Your task to perform on an android device: clear all cookies in the chrome app Image 0: 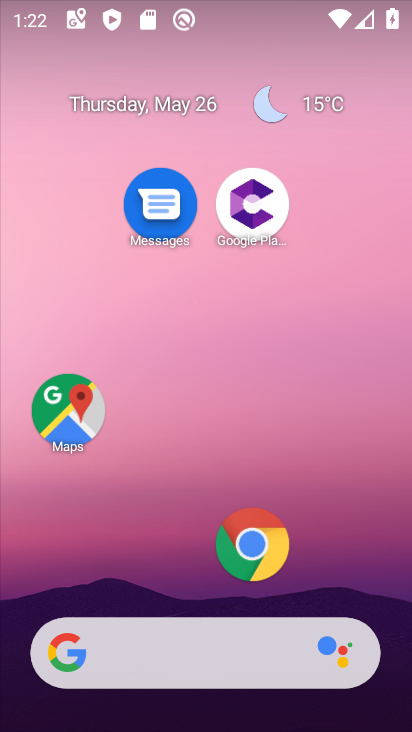
Step 0: click (247, 542)
Your task to perform on an android device: clear all cookies in the chrome app Image 1: 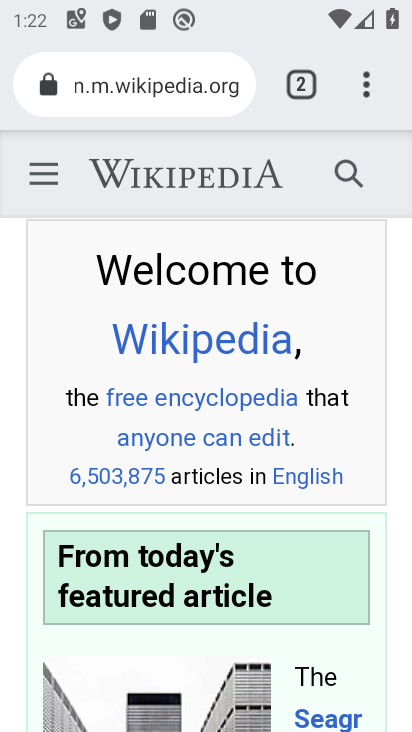
Step 1: click (374, 73)
Your task to perform on an android device: clear all cookies in the chrome app Image 2: 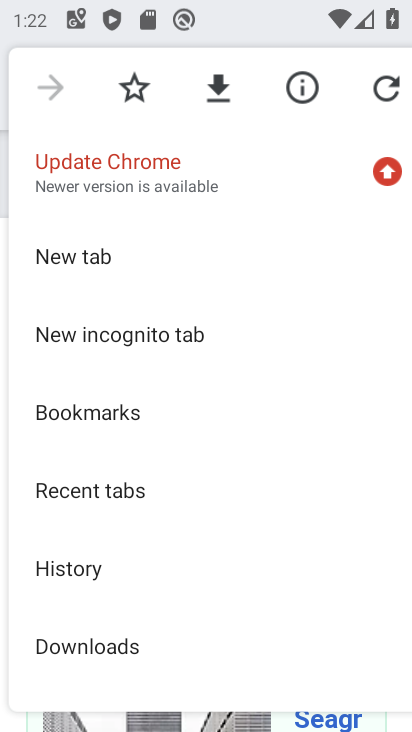
Step 2: drag from (72, 563) to (138, 169)
Your task to perform on an android device: clear all cookies in the chrome app Image 3: 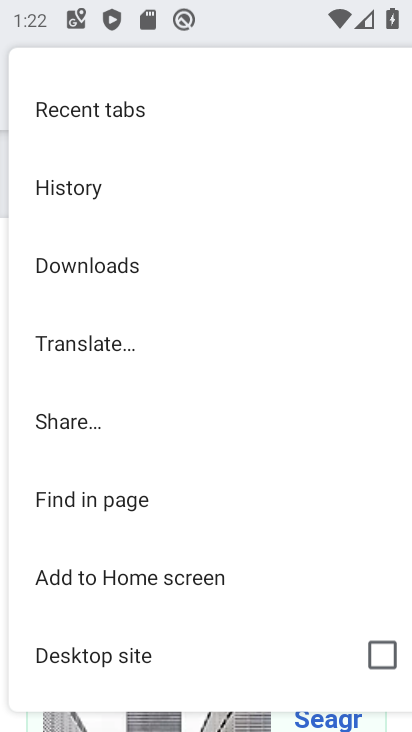
Step 3: drag from (119, 664) to (184, 201)
Your task to perform on an android device: clear all cookies in the chrome app Image 4: 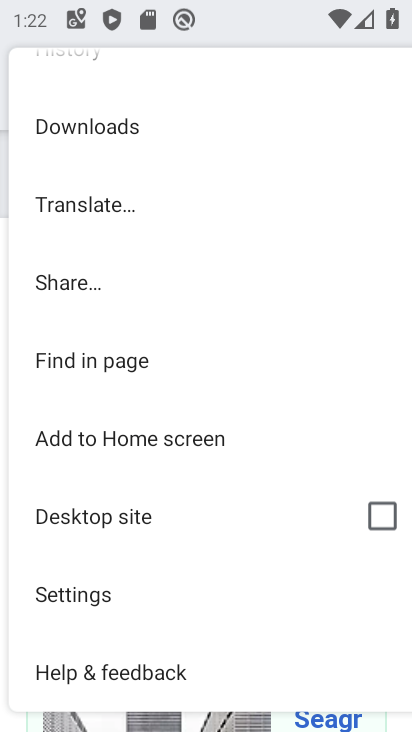
Step 4: click (135, 595)
Your task to perform on an android device: clear all cookies in the chrome app Image 5: 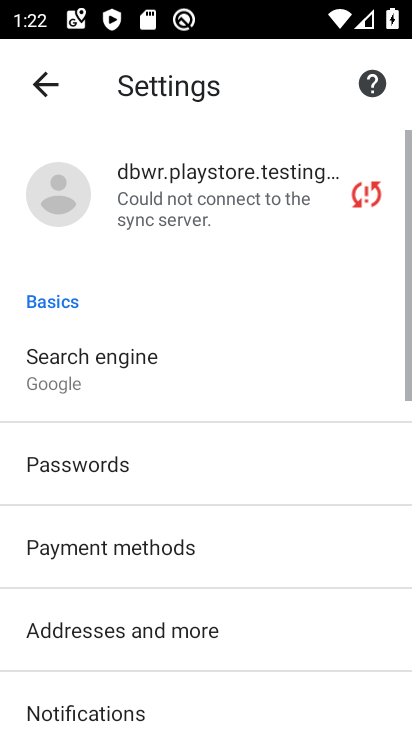
Step 5: drag from (135, 595) to (168, 328)
Your task to perform on an android device: clear all cookies in the chrome app Image 6: 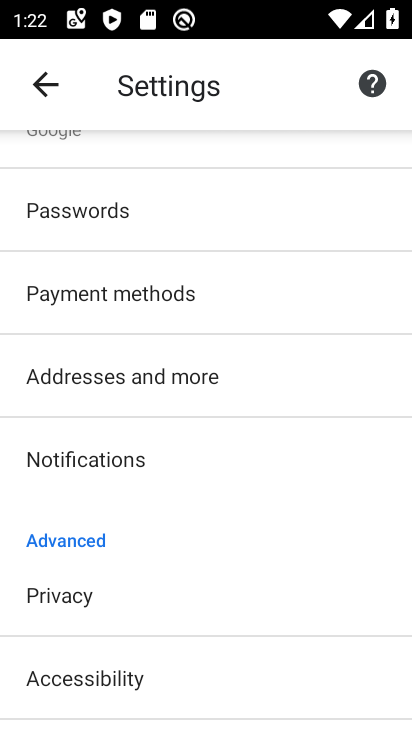
Step 6: click (39, 81)
Your task to perform on an android device: clear all cookies in the chrome app Image 7: 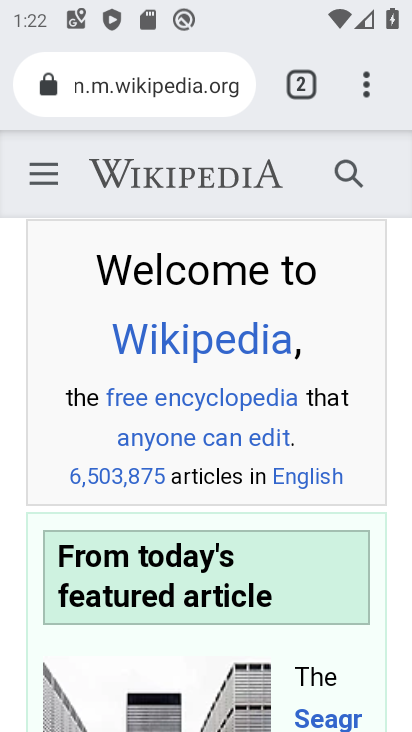
Step 7: click (353, 87)
Your task to perform on an android device: clear all cookies in the chrome app Image 8: 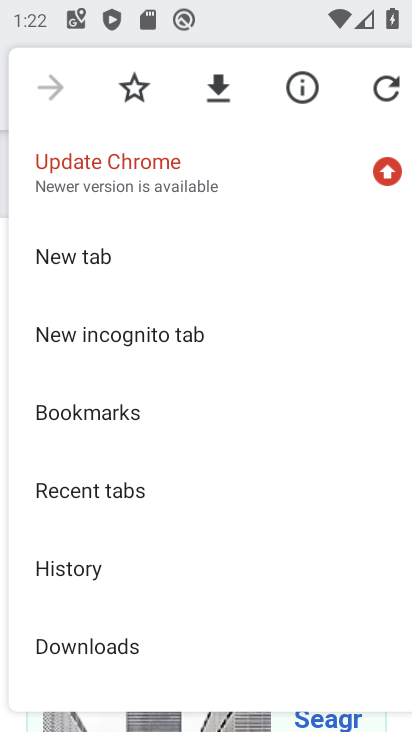
Step 8: click (46, 566)
Your task to perform on an android device: clear all cookies in the chrome app Image 9: 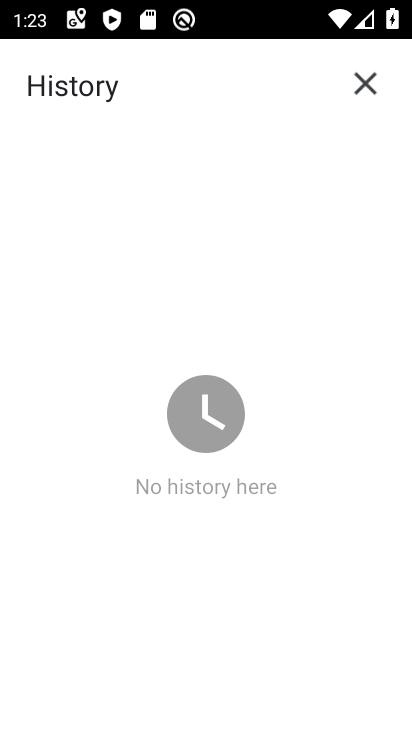
Step 9: task complete